Your task to perform on an android device: toggle improve location accuracy Image 0: 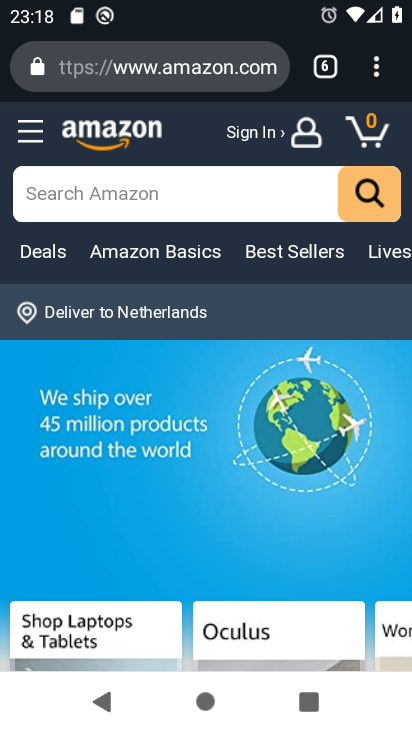
Step 0: press home button
Your task to perform on an android device: toggle improve location accuracy Image 1: 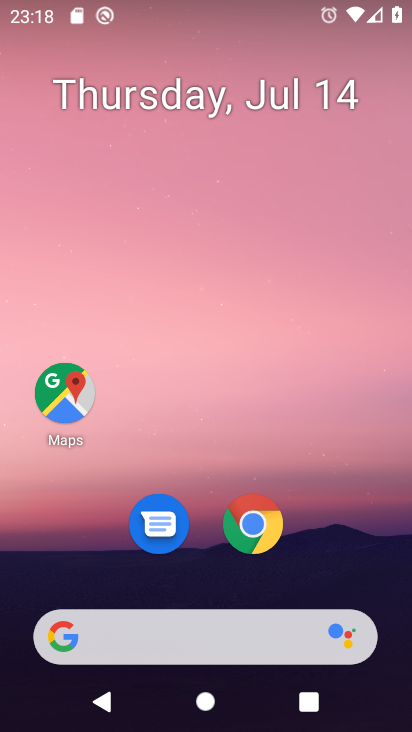
Step 1: drag from (353, 526) to (349, 14)
Your task to perform on an android device: toggle improve location accuracy Image 2: 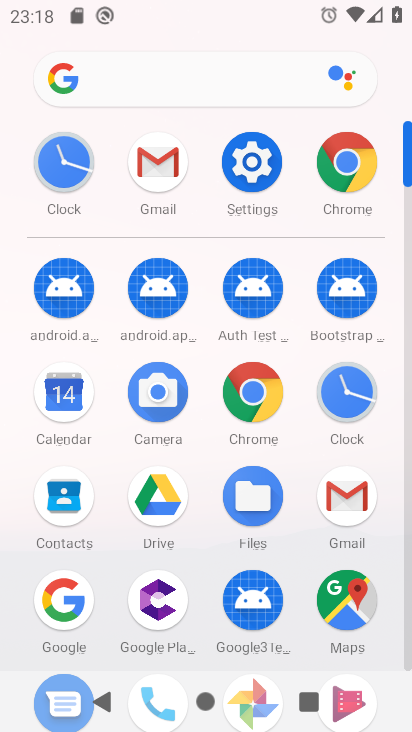
Step 2: click (255, 160)
Your task to perform on an android device: toggle improve location accuracy Image 3: 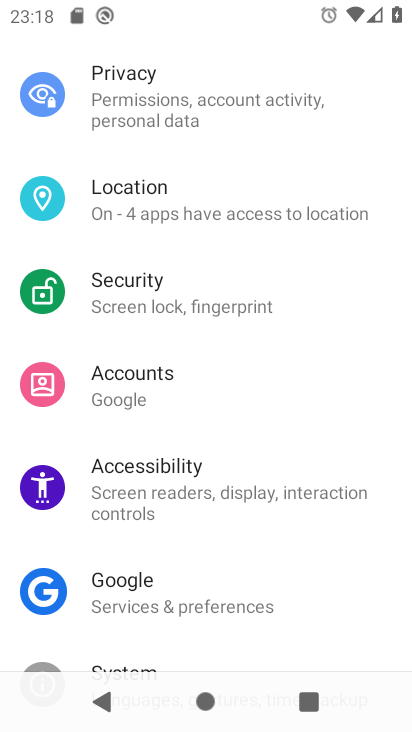
Step 3: click (215, 200)
Your task to perform on an android device: toggle improve location accuracy Image 4: 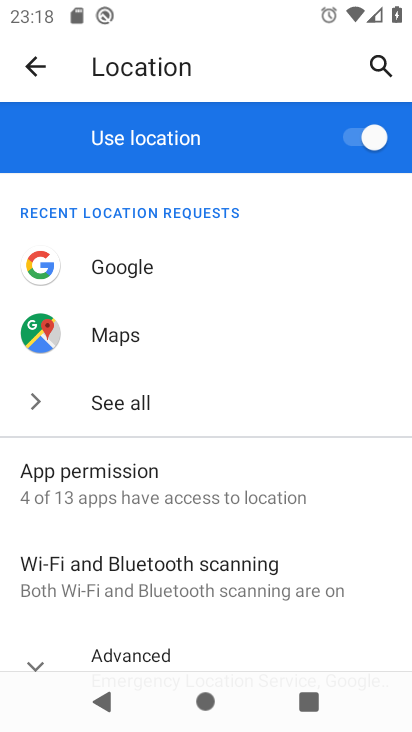
Step 4: click (28, 662)
Your task to perform on an android device: toggle improve location accuracy Image 5: 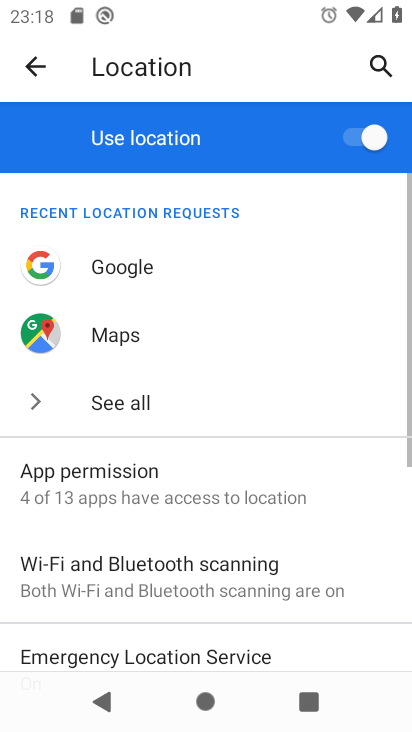
Step 5: drag from (234, 481) to (281, 177)
Your task to perform on an android device: toggle improve location accuracy Image 6: 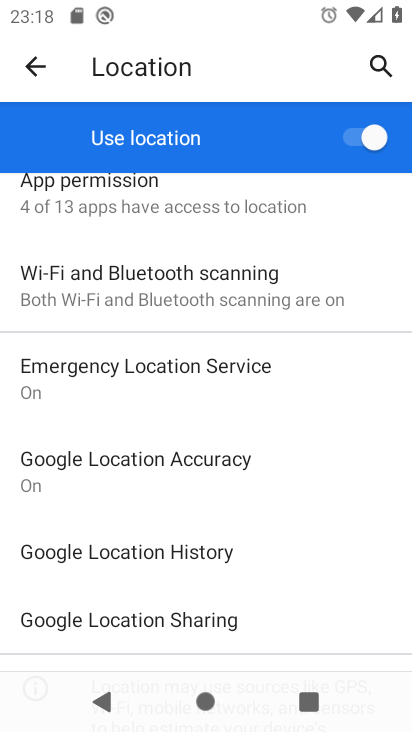
Step 6: click (191, 472)
Your task to perform on an android device: toggle improve location accuracy Image 7: 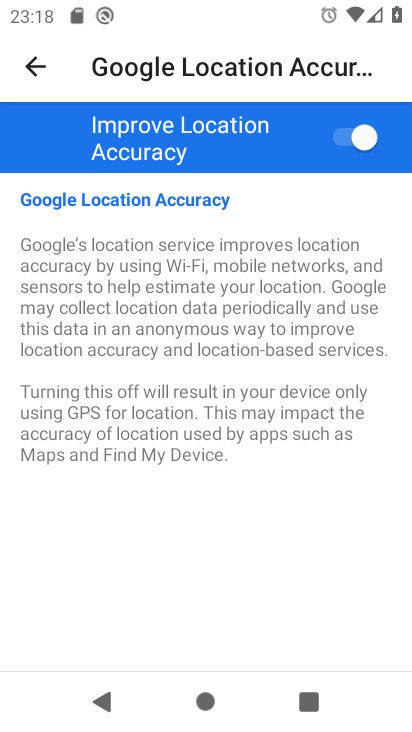
Step 7: click (360, 124)
Your task to perform on an android device: toggle improve location accuracy Image 8: 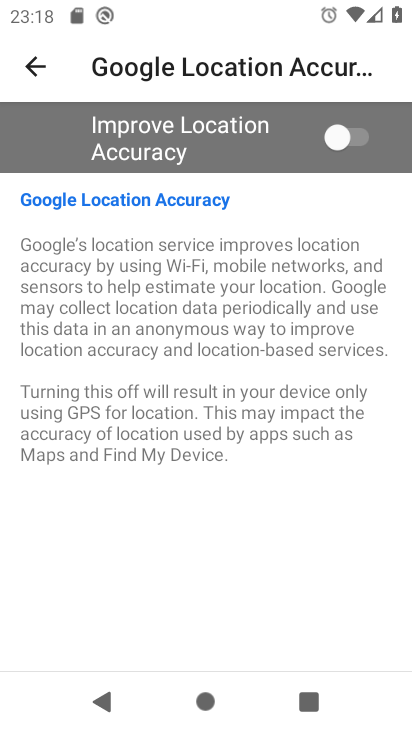
Step 8: task complete